Your task to perform on an android device: Open Google Maps Image 0: 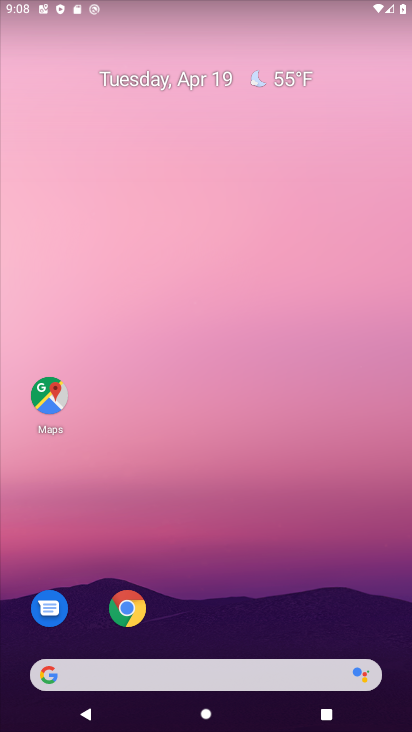
Step 0: click (57, 393)
Your task to perform on an android device: Open Google Maps Image 1: 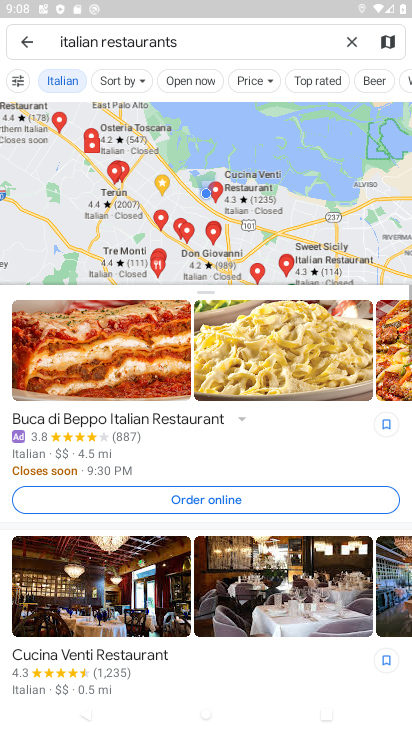
Step 1: task complete